Your task to perform on an android device: Go to CNN.com Image 0: 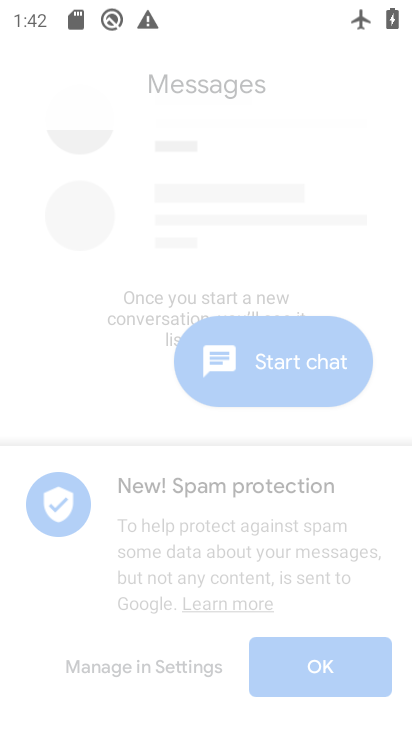
Step 0: drag from (178, 616) to (298, 60)
Your task to perform on an android device: Go to CNN.com Image 1: 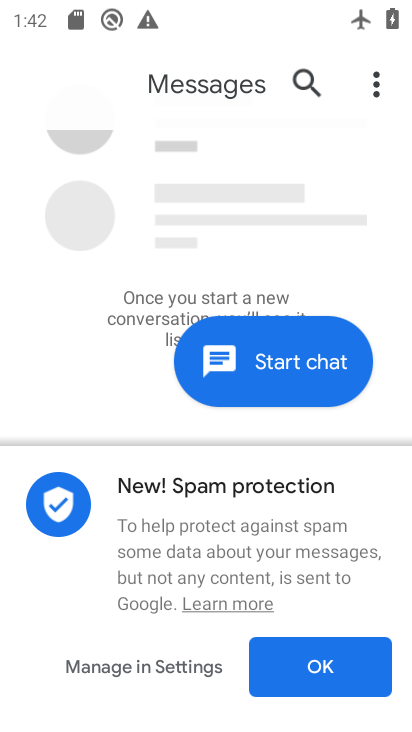
Step 1: press back button
Your task to perform on an android device: Go to CNN.com Image 2: 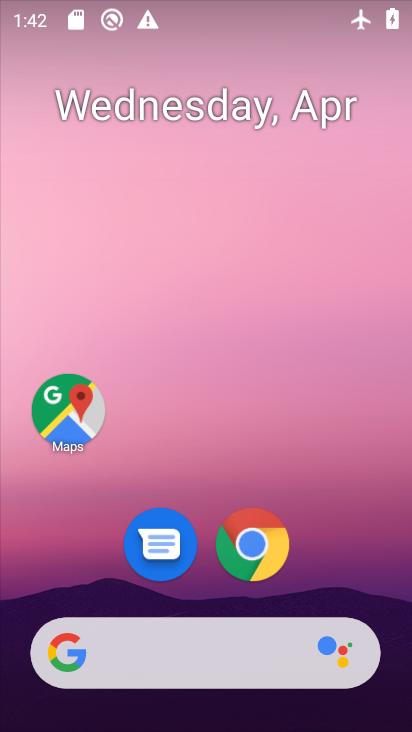
Step 2: click (247, 556)
Your task to perform on an android device: Go to CNN.com Image 3: 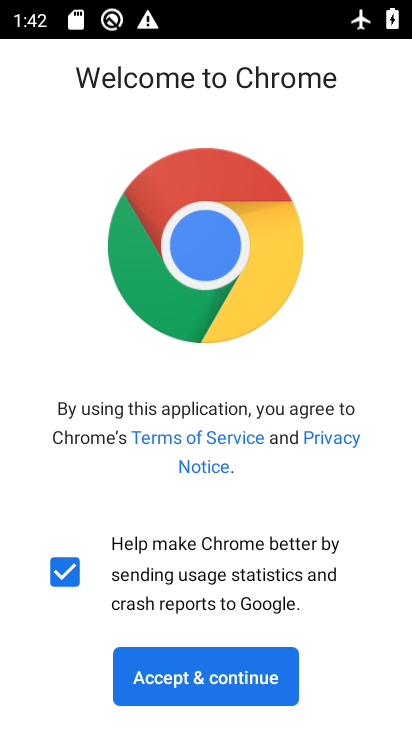
Step 3: click (265, 697)
Your task to perform on an android device: Go to CNN.com Image 4: 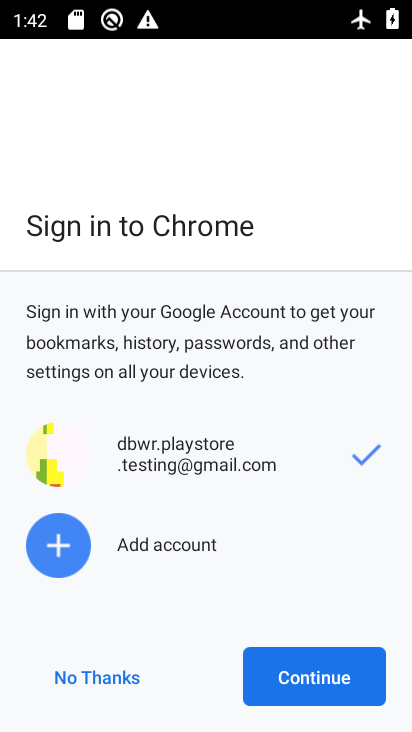
Step 4: click (318, 658)
Your task to perform on an android device: Go to CNN.com Image 5: 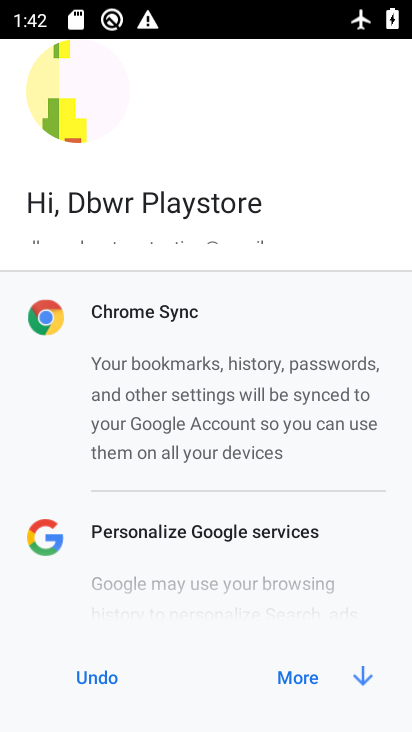
Step 5: click (311, 694)
Your task to perform on an android device: Go to CNN.com Image 6: 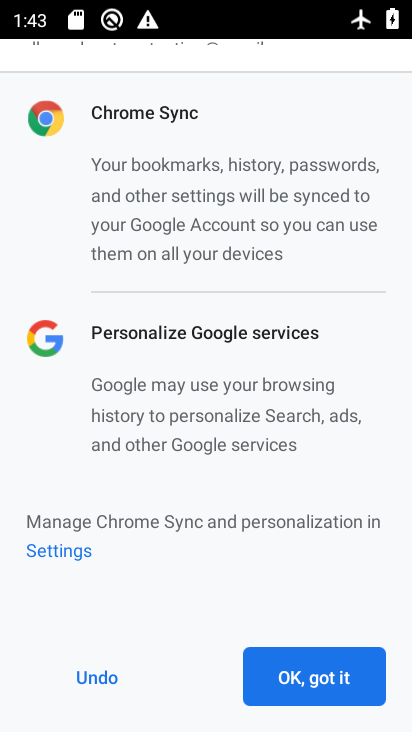
Step 6: click (311, 694)
Your task to perform on an android device: Go to CNN.com Image 7: 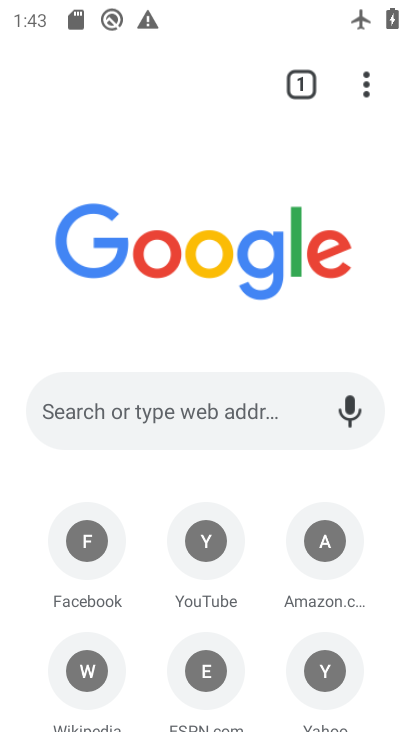
Step 7: click (171, 406)
Your task to perform on an android device: Go to CNN.com Image 8: 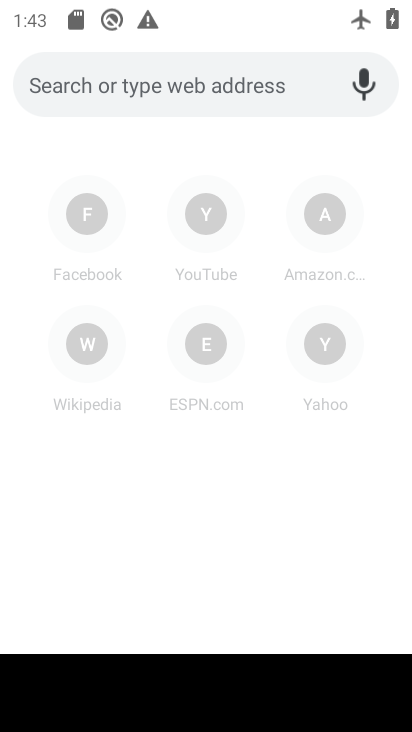
Step 8: type "CNN.com"
Your task to perform on an android device: Go to CNN.com Image 9: 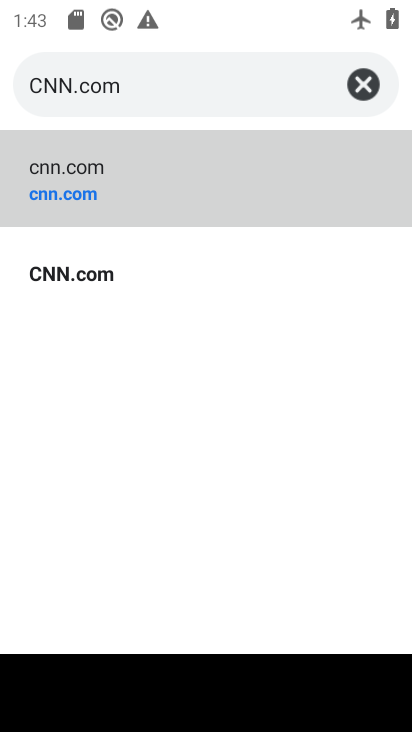
Step 9: click (206, 197)
Your task to perform on an android device: Go to CNN.com Image 10: 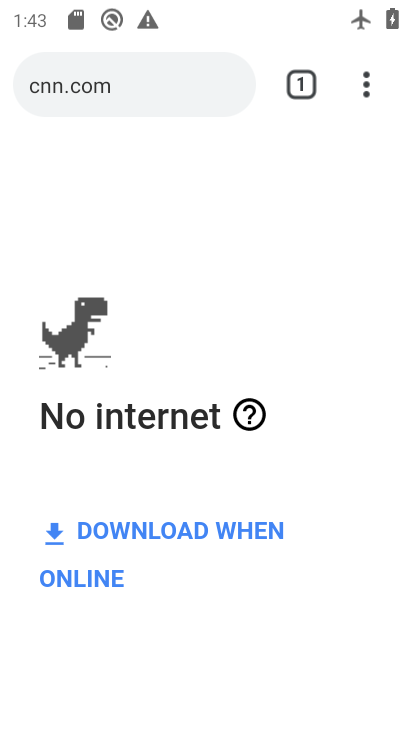
Step 10: task complete